Your task to perform on an android device: star an email in the gmail app Image 0: 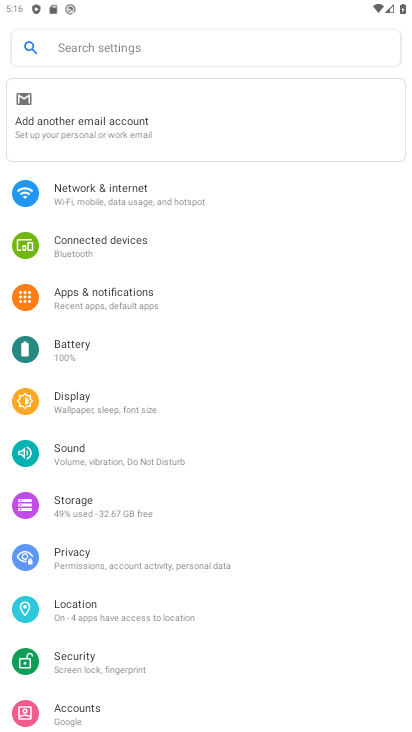
Step 0: press home button
Your task to perform on an android device: star an email in the gmail app Image 1: 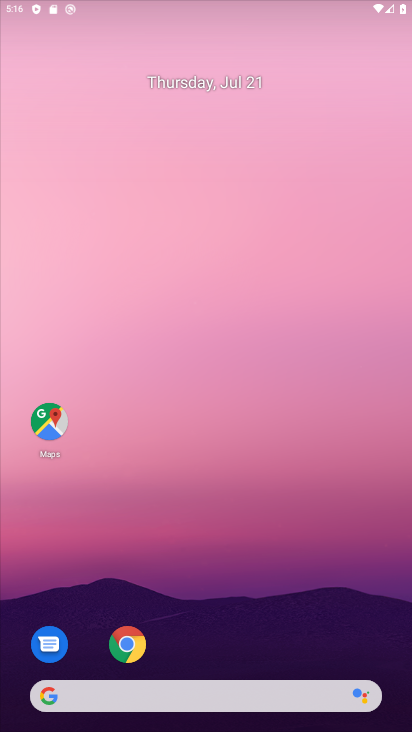
Step 1: drag from (276, 465) to (354, 156)
Your task to perform on an android device: star an email in the gmail app Image 2: 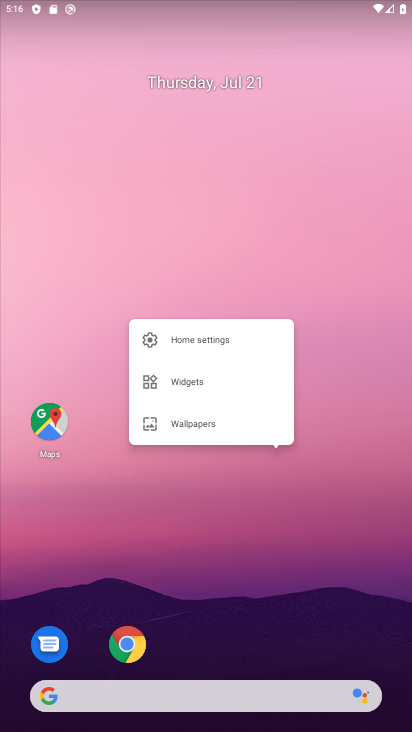
Step 2: drag from (257, 558) to (232, 228)
Your task to perform on an android device: star an email in the gmail app Image 3: 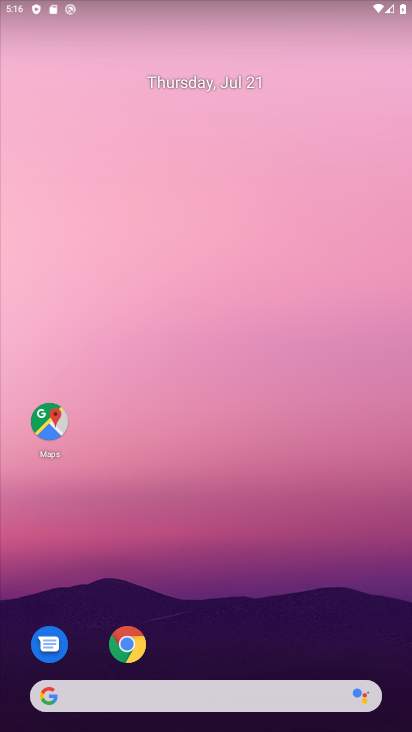
Step 3: drag from (216, 569) to (192, 175)
Your task to perform on an android device: star an email in the gmail app Image 4: 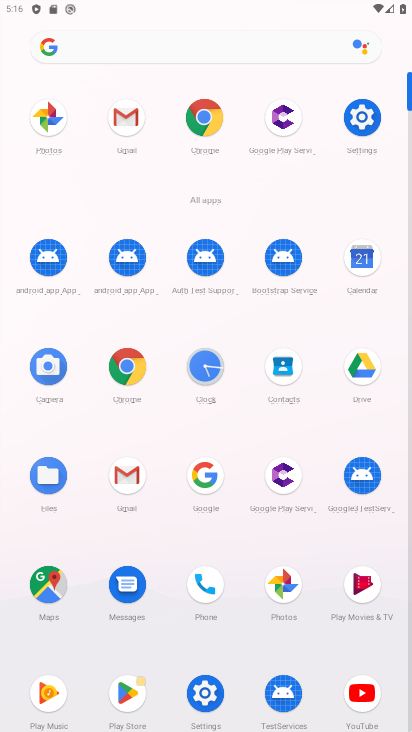
Step 4: click (120, 478)
Your task to perform on an android device: star an email in the gmail app Image 5: 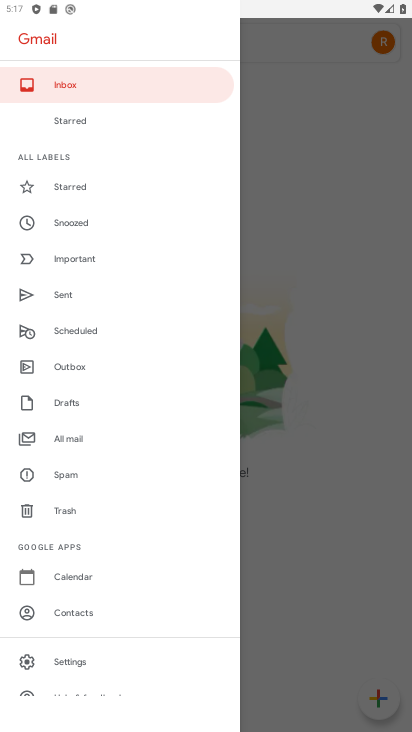
Step 5: click (82, 180)
Your task to perform on an android device: star an email in the gmail app Image 6: 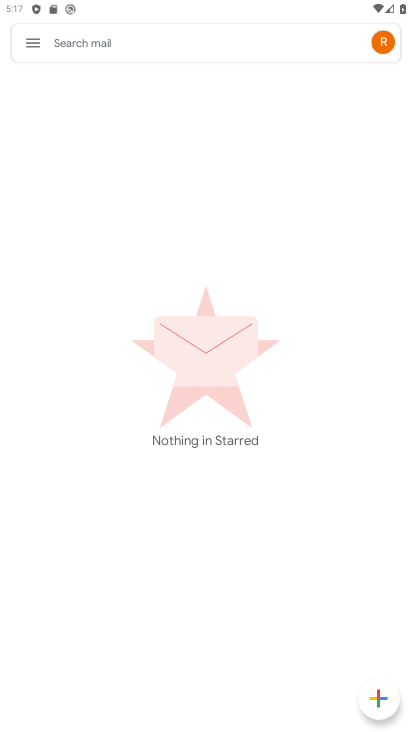
Step 6: task complete